Your task to perform on an android device: open wifi settings Image 0: 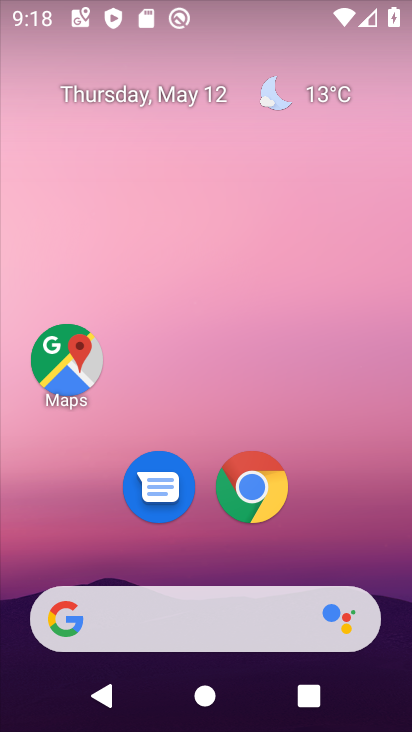
Step 0: drag from (274, 7) to (203, 690)
Your task to perform on an android device: open wifi settings Image 1: 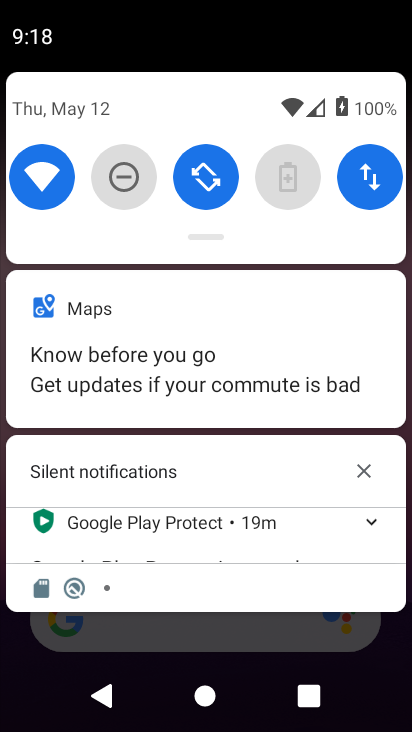
Step 1: click (50, 184)
Your task to perform on an android device: open wifi settings Image 2: 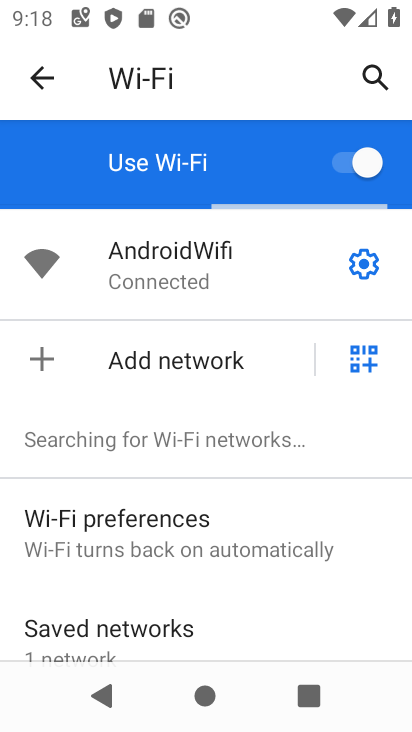
Step 2: task complete